Your task to perform on an android device: Clear all items from cart on walmart. Add "panasonic triple a" to the cart on walmart, then select checkout. Image 0: 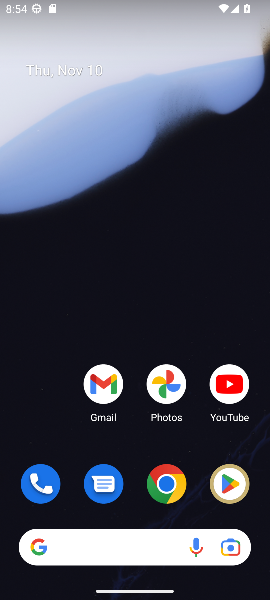
Step 0: click (171, 478)
Your task to perform on an android device: Clear all items from cart on walmart. Add "panasonic triple a" to the cart on walmart, then select checkout. Image 1: 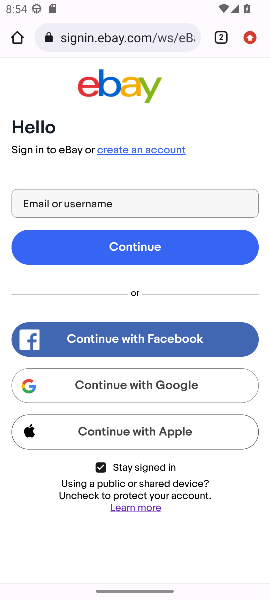
Step 1: click (110, 42)
Your task to perform on an android device: Clear all items from cart on walmart. Add "panasonic triple a" to the cart on walmart, then select checkout. Image 2: 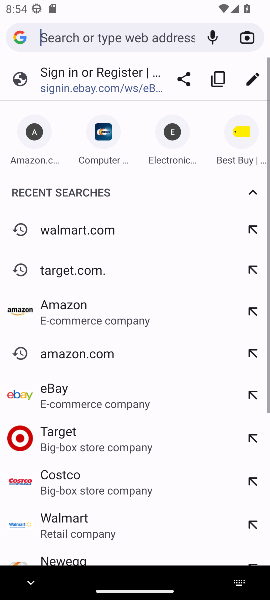
Step 2: click (75, 233)
Your task to perform on an android device: Clear all items from cart on walmart. Add "panasonic triple a" to the cart on walmart, then select checkout. Image 3: 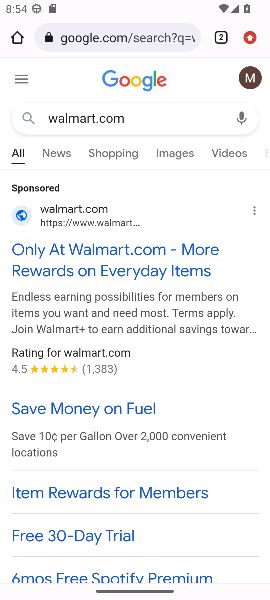
Step 3: drag from (79, 336) to (84, 177)
Your task to perform on an android device: Clear all items from cart on walmart. Add "panasonic triple a" to the cart on walmart, then select checkout. Image 4: 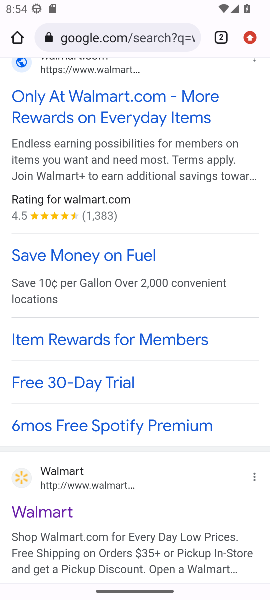
Step 4: click (48, 497)
Your task to perform on an android device: Clear all items from cart on walmart. Add "panasonic triple a" to the cart on walmart, then select checkout. Image 5: 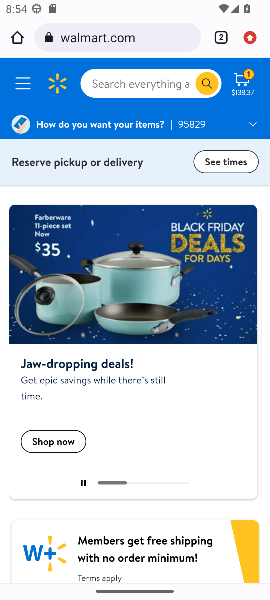
Step 5: click (240, 84)
Your task to perform on an android device: Clear all items from cart on walmart. Add "panasonic triple a" to the cart on walmart, then select checkout. Image 6: 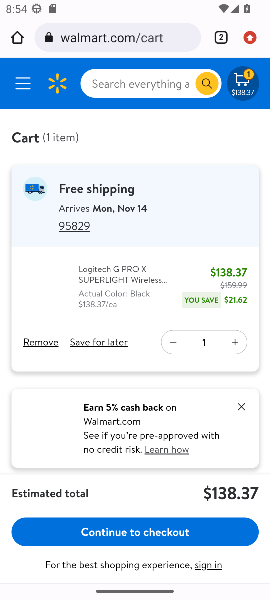
Step 6: click (37, 344)
Your task to perform on an android device: Clear all items from cart on walmart. Add "panasonic triple a" to the cart on walmart, then select checkout. Image 7: 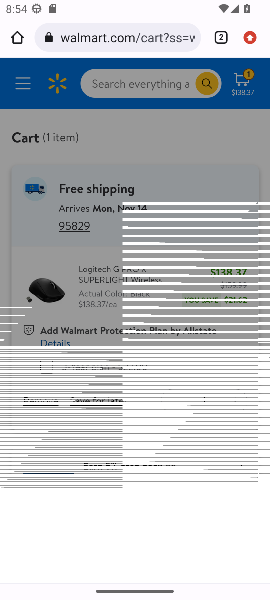
Step 7: drag from (108, 341) to (97, 234)
Your task to perform on an android device: Clear all items from cart on walmart. Add "panasonic triple a" to the cart on walmart, then select checkout. Image 8: 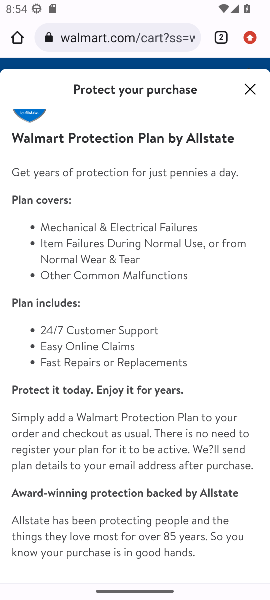
Step 8: drag from (111, 397) to (118, 455)
Your task to perform on an android device: Clear all items from cart on walmart. Add "panasonic triple a" to the cart on walmart, then select checkout. Image 9: 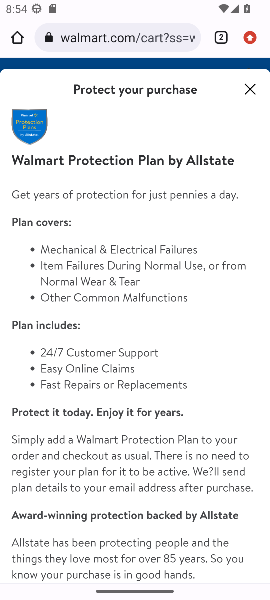
Step 9: click (249, 91)
Your task to perform on an android device: Clear all items from cart on walmart. Add "panasonic triple a" to the cart on walmart, then select checkout. Image 10: 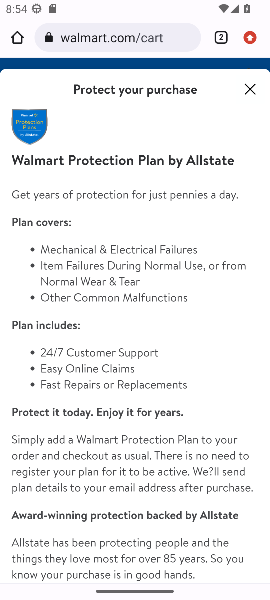
Step 10: click (253, 93)
Your task to perform on an android device: Clear all items from cart on walmart. Add "panasonic triple a" to the cart on walmart, then select checkout. Image 11: 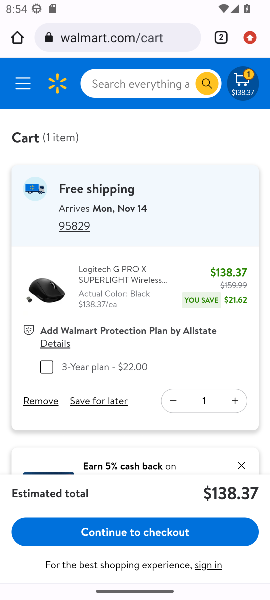
Step 11: click (35, 407)
Your task to perform on an android device: Clear all items from cart on walmart. Add "panasonic triple a" to the cart on walmart, then select checkout. Image 12: 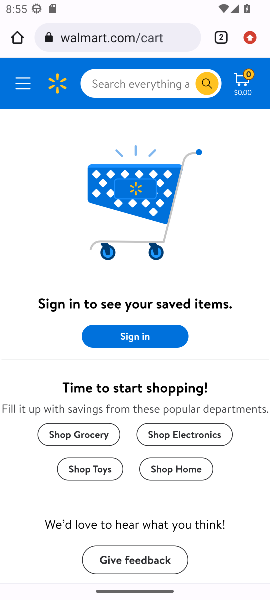
Step 12: click (142, 77)
Your task to perform on an android device: Clear all items from cart on walmart. Add "panasonic triple a" to the cart on walmart, then select checkout. Image 13: 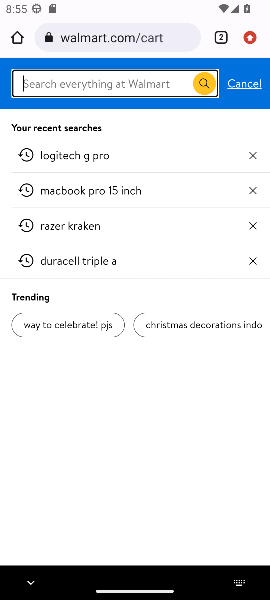
Step 13: type "panasonic triple a"
Your task to perform on an android device: Clear all items from cart on walmart. Add "panasonic triple a" to the cart on walmart, then select checkout. Image 14: 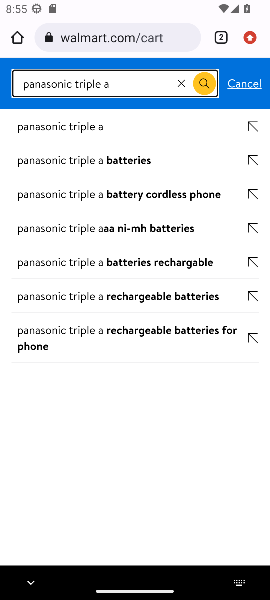
Step 14: click (89, 133)
Your task to perform on an android device: Clear all items from cart on walmart. Add "panasonic triple a" to the cart on walmart, then select checkout. Image 15: 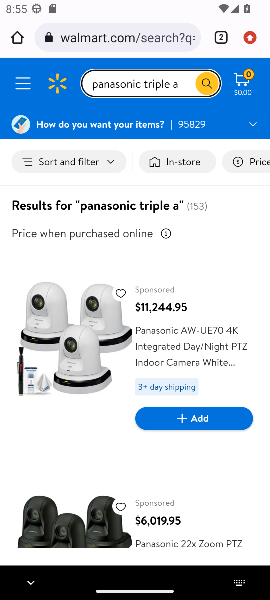
Step 15: drag from (108, 416) to (98, 140)
Your task to perform on an android device: Clear all items from cart on walmart. Add "panasonic triple a" to the cart on walmart, then select checkout. Image 16: 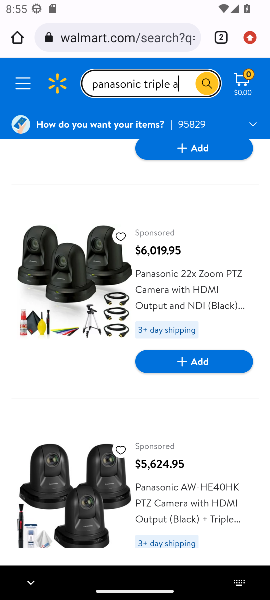
Step 16: drag from (80, 444) to (83, 197)
Your task to perform on an android device: Clear all items from cart on walmart. Add "panasonic triple a" to the cart on walmart, then select checkout. Image 17: 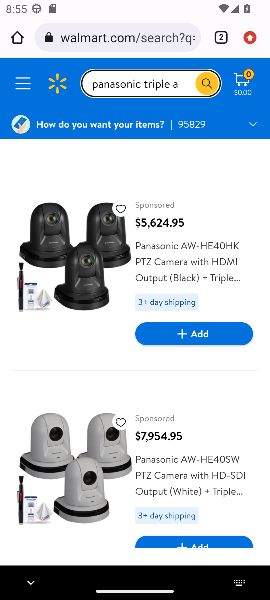
Step 17: drag from (84, 479) to (93, 244)
Your task to perform on an android device: Clear all items from cart on walmart. Add "panasonic triple a" to the cart on walmart, then select checkout. Image 18: 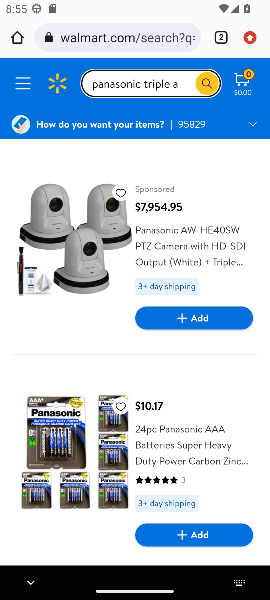
Step 18: drag from (86, 435) to (89, 308)
Your task to perform on an android device: Clear all items from cart on walmart. Add "panasonic triple a" to the cart on walmart, then select checkout. Image 19: 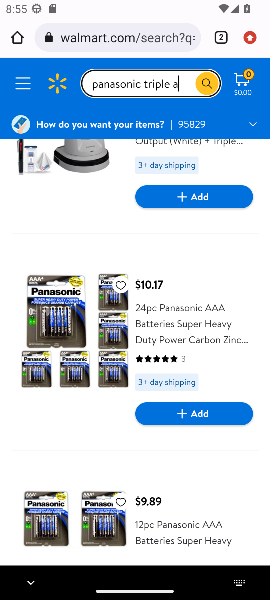
Step 19: click (201, 412)
Your task to perform on an android device: Clear all items from cart on walmart. Add "panasonic triple a" to the cart on walmart, then select checkout. Image 20: 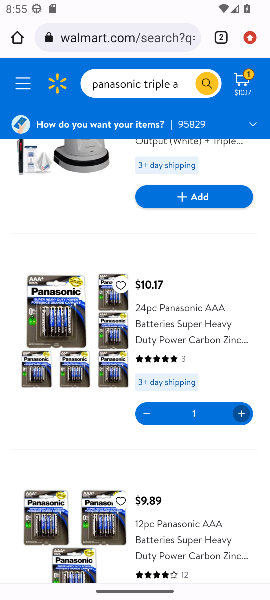
Step 20: click (241, 79)
Your task to perform on an android device: Clear all items from cart on walmart. Add "panasonic triple a" to the cart on walmart, then select checkout. Image 21: 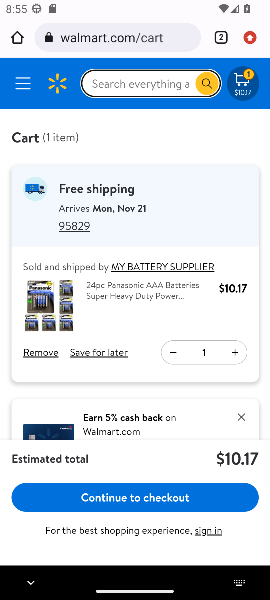
Step 21: click (130, 499)
Your task to perform on an android device: Clear all items from cart on walmart. Add "panasonic triple a" to the cart on walmart, then select checkout. Image 22: 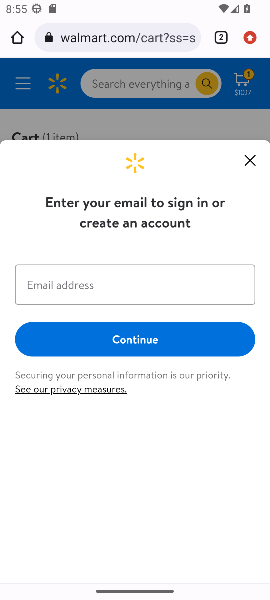
Step 22: task complete